Your task to perform on an android device: clear history in the chrome app Image 0: 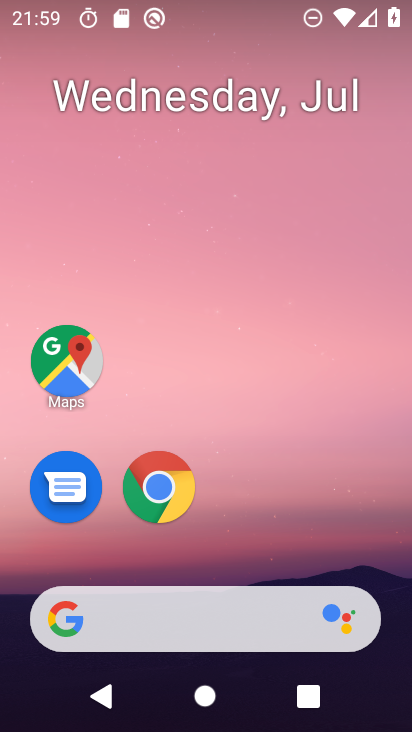
Step 0: drag from (368, 506) to (387, 157)
Your task to perform on an android device: clear history in the chrome app Image 1: 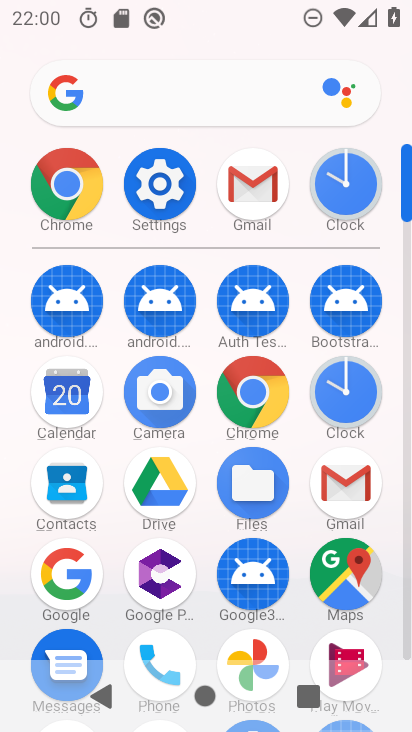
Step 1: click (270, 395)
Your task to perform on an android device: clear history in the chrome app Image 2: 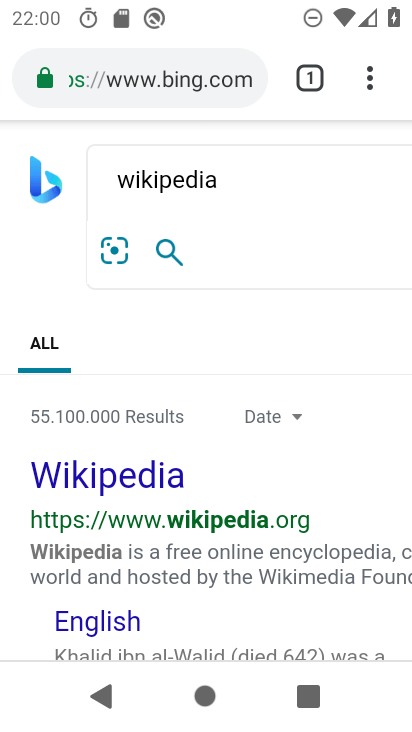
Step 2: click (368, 85)
Your task to perform on an android device: clear history in the chrome app Image 3: 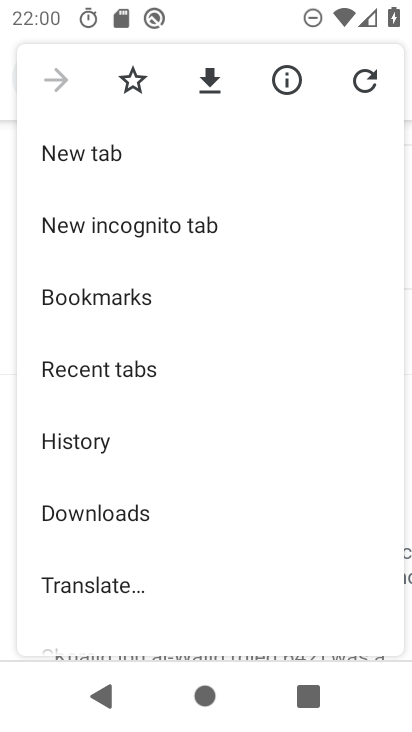
Step 3: drag from (280, 393) to (300, 321)
Your task to perform on an android device: clear history in the chrome app Image 4: 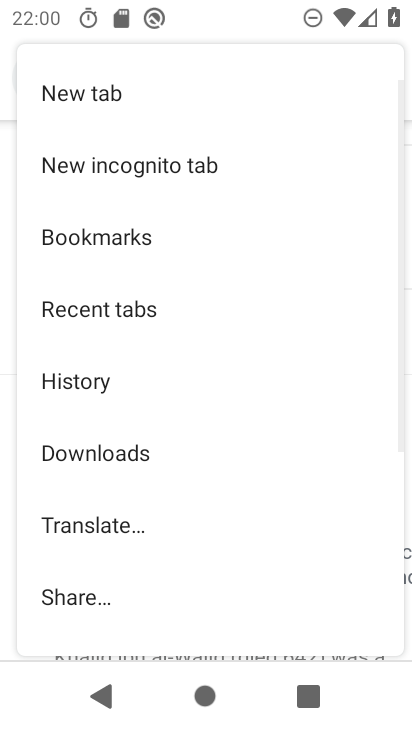
Step 4: drag from (287, 391) to (322, 262)
Your task to perform on an android device: clear history in the chrome app Image 5: 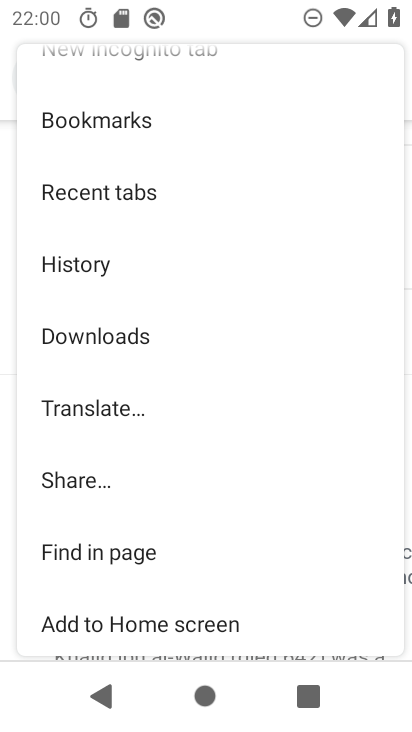
Step 5: drag from (322, 403) to (317, 313)
Your task to perform on an android device: clear history in the chrome app Image 6: 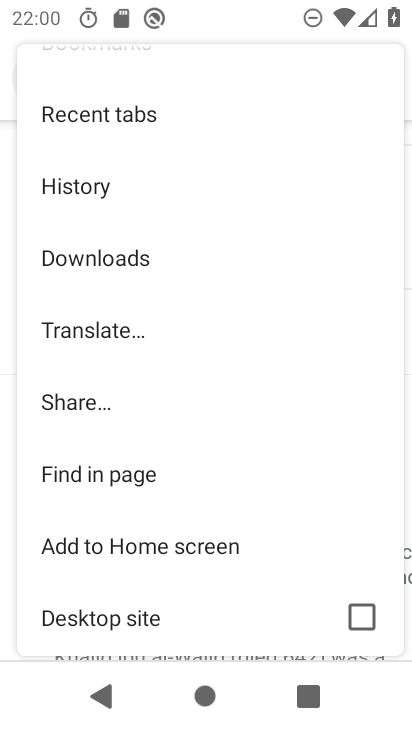
Step 6: click (161, 185)
Your task to perform on an android device: clear history in the chrome app Image 7: 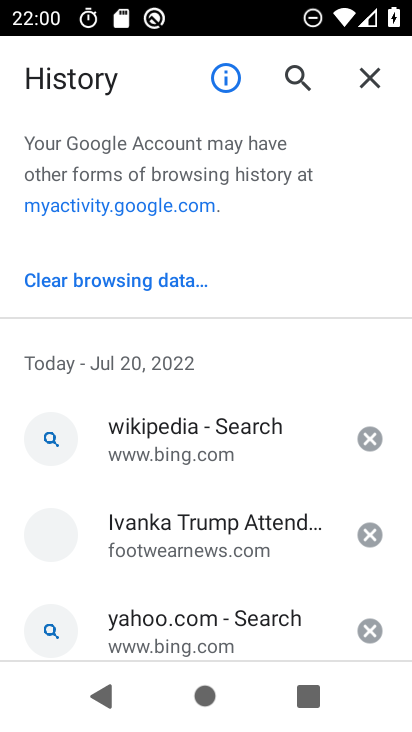
Step 7: click (175, 285)
Your task to perform on an android device: clear history in the chrome app Image 8: 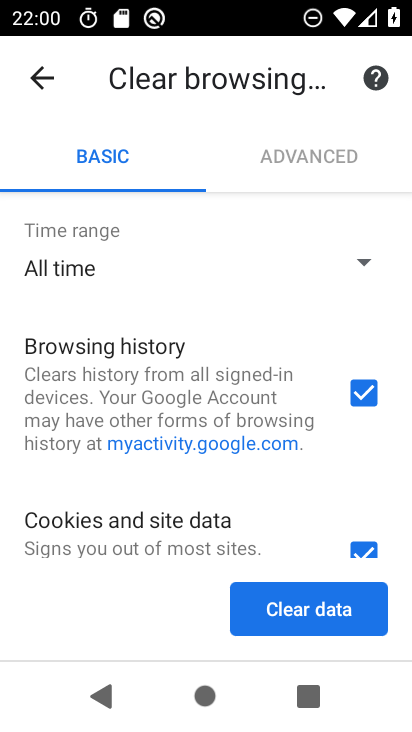
Step 8: click (297, 599)
Your task to perform on an android device: clear history in the chrome app Image 9: 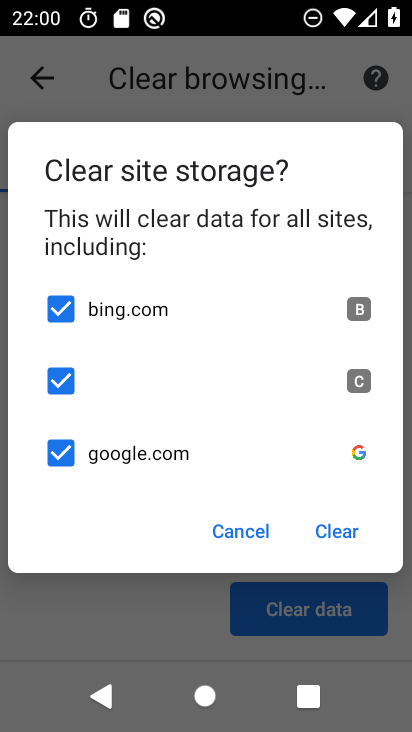
Step 9: click (348, 534)
Your task to perform on an android device: clear history in the chrome app Image 10: 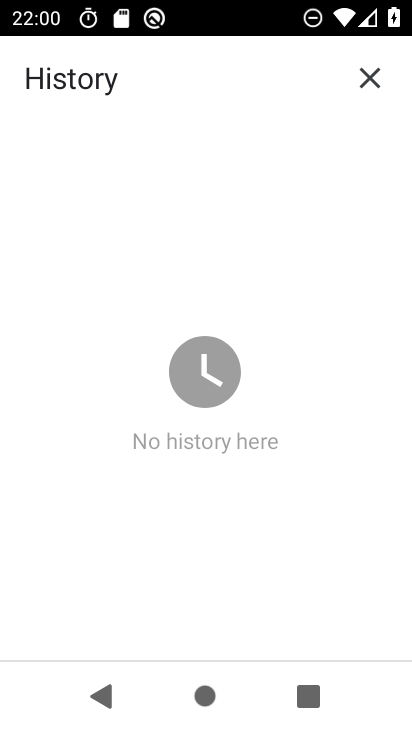
Step 10: task complete